Your task to perform on an android device: Open Amazon Image 0: 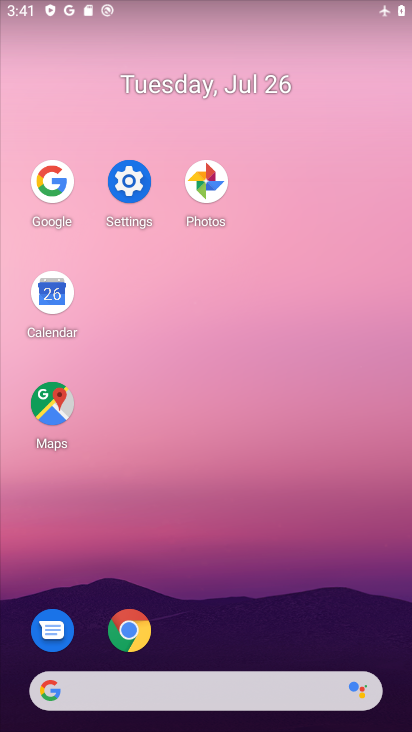
Step 0: click (119, 618)
Your task to perform on an android device: Open Amazon Image 1: 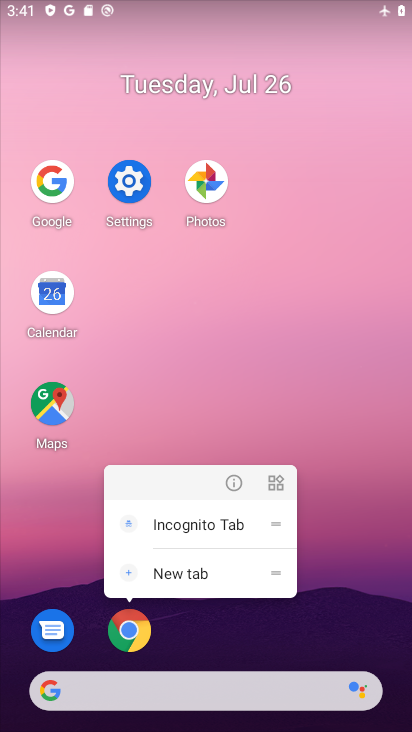
Step 1: click (139, 634)
Your task to perform on an android device: Open Amazon Image 2: 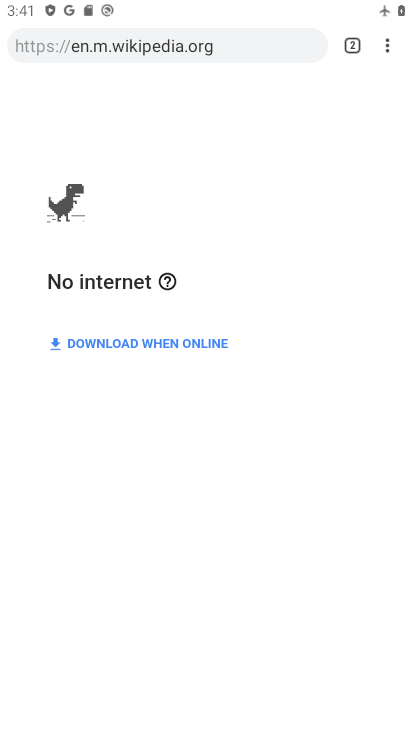
Step 2: task complete